Your task to perform on an android device: turn off sleep mode Image 0: 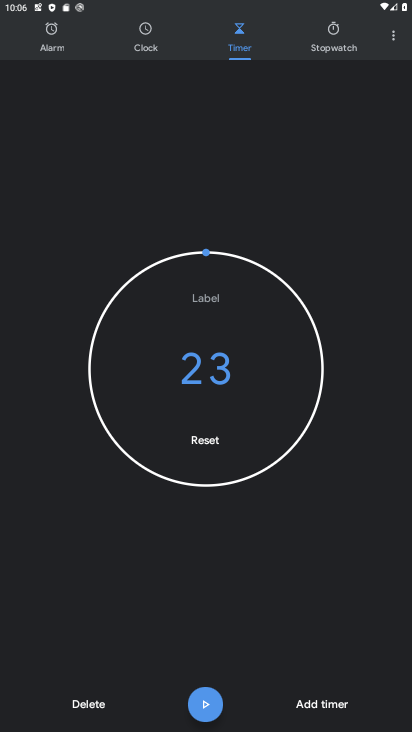
Step 0: drag from (191, 532) to (332, 247)
Your task to perform on an android device: turn off sleep mode Image 1: 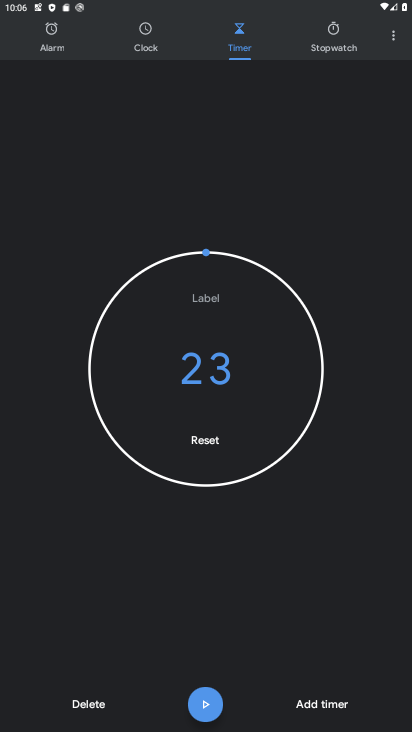
Step 1: press home button
Your task to perform on an android device: turn off sleep mode Image 2: 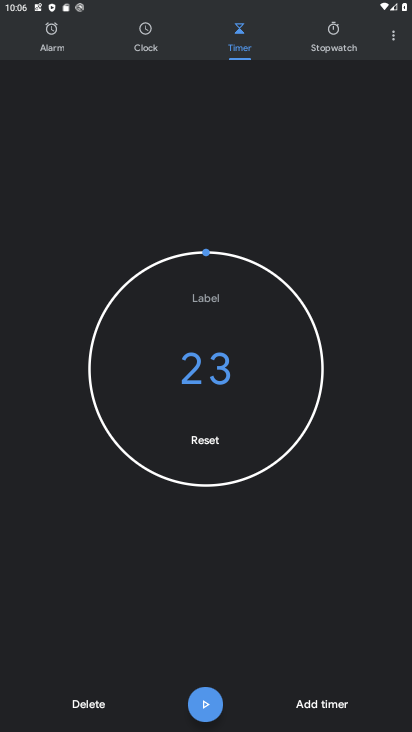
Step 2: press home button
Your task to perform on an android device: turn off sleep mode Image 3: 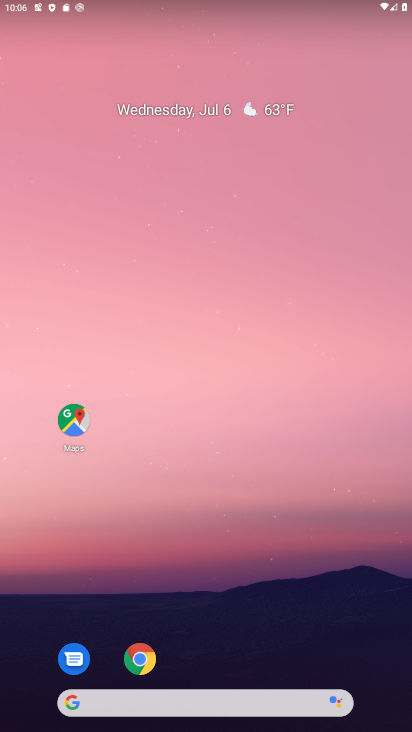
Step 3: drag from (285, 549) to (332, 167)
Your task to perform on an android device: turn off sleep mode Image 4: 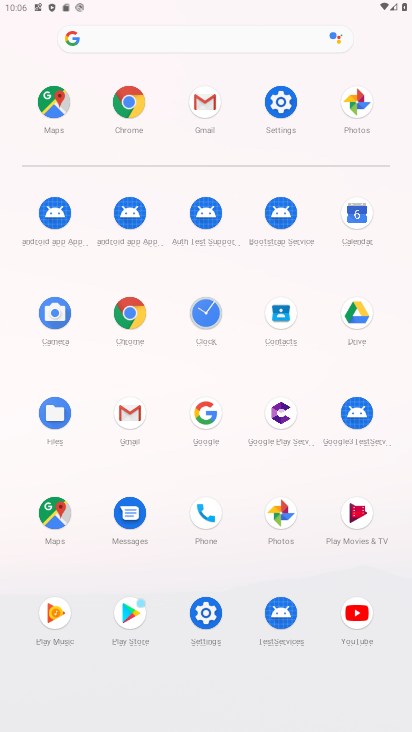
Step 4: click (274, 99)
Your task to perform on an android device: turn off sleep mode Image 5: 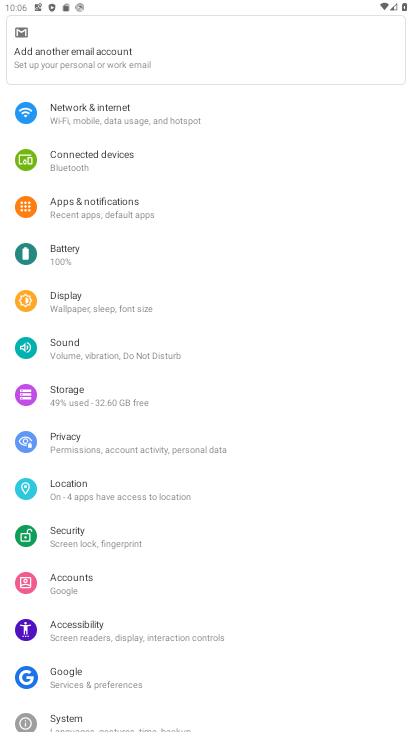
Step 5: drag from (167, 547) to (338, 72)
Your task to perform on an android device: turn off sleep mode Image 6: 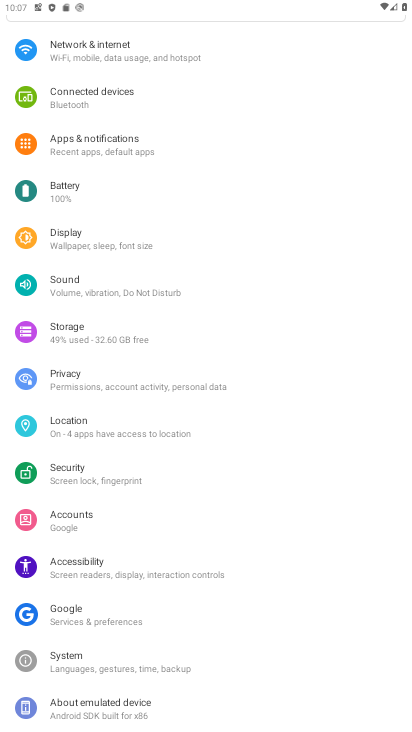
Step 6: click (107, 243)
Your task to perform on an android device: turn off sleep mode Image 7: 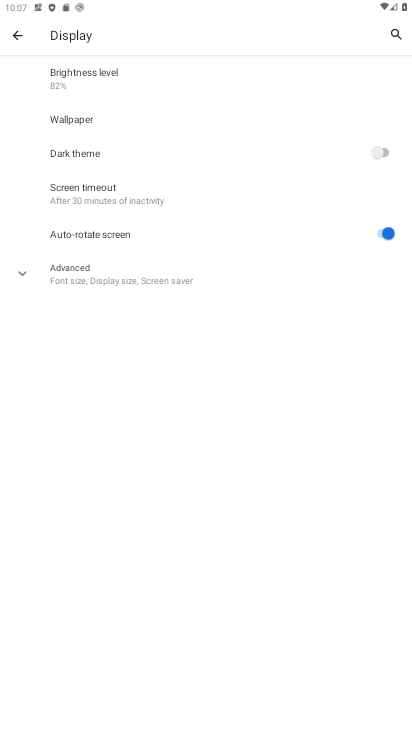
Step 7: click (100, 201)
Your task to perform on an android device: turn off sleep mode Image 8: 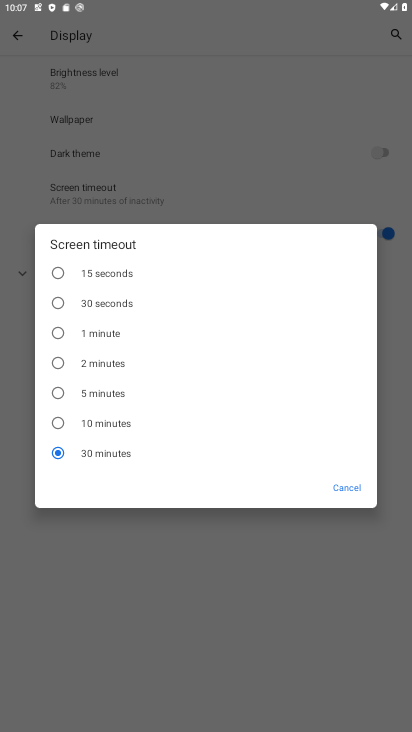
Step 8: task complete